Your task to perform on an android device: turn on the 12-hour format for clock Image 0: 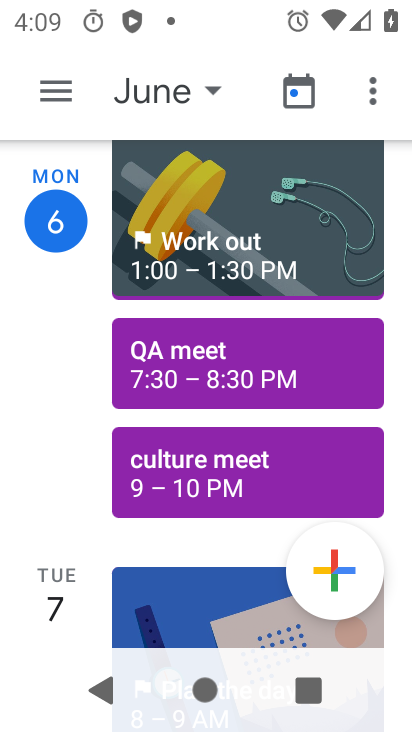
Step 0: press home button
Your task to perform on an android device: turn on the 12-hour format for clock Image 1: 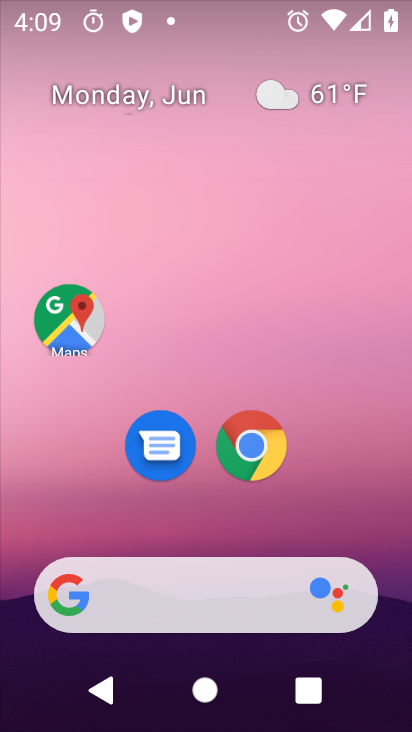
Step 1: drag from (197, 526) to (190, 103)
Your task to perform on an android device: turn on the 12-hour format for clock Image 2: 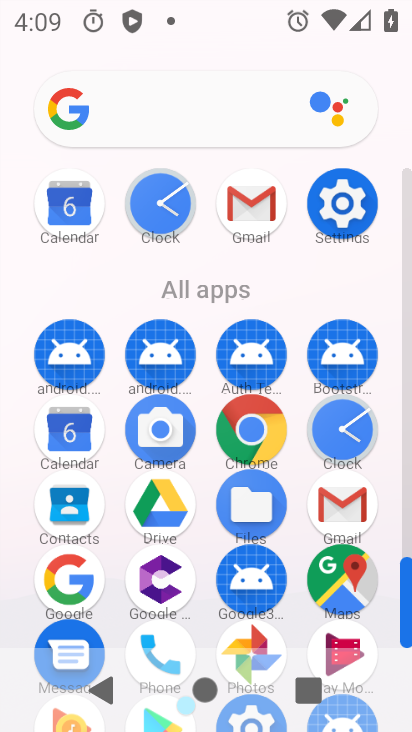
Step 2: click (164, 206)
Your task to perform on an android device: turn on the 12-hour format for clock Image 3: 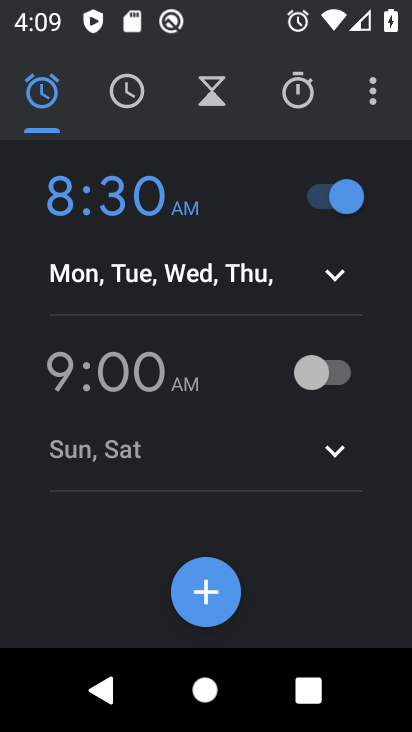
Step 3: click (375, 96)
Your task to perform on an android device: turn on the 12-hour format for clock Image 4: 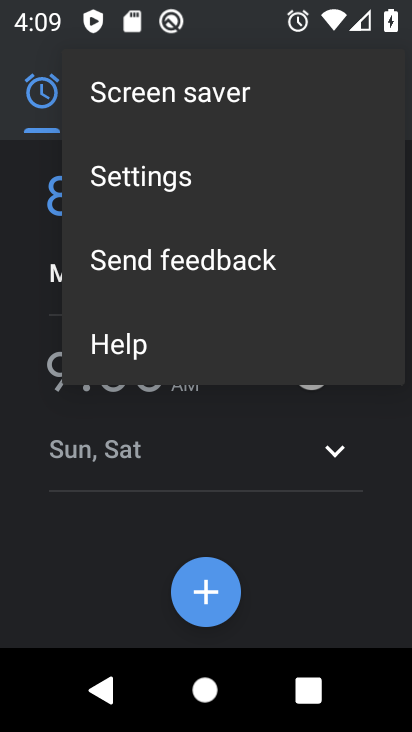
Step 4: click (162, 185)
Your task to perform on an android device: turn on the 12-hour format for clock Image 5: 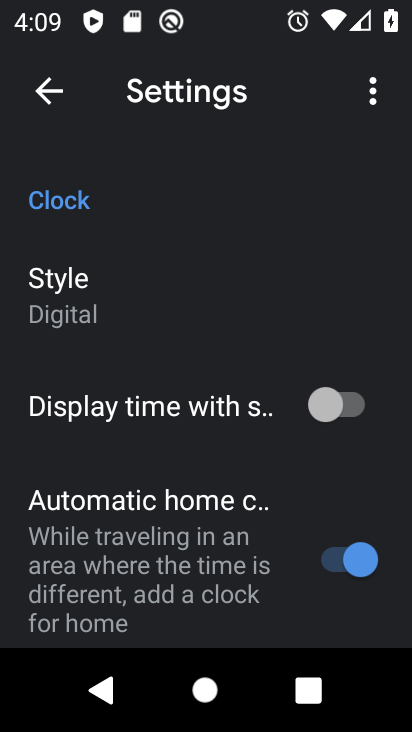
Step 5: drag from (180, 554) to (177, 234)
Your task to perform on an android device: turn on the 12-hour format for clock Image 6: 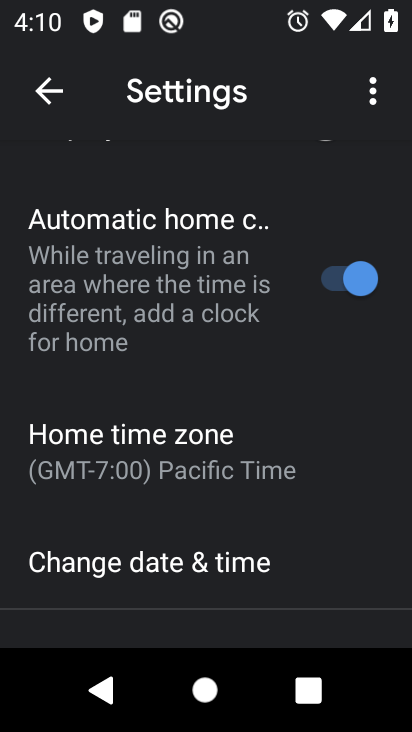
Step 6: click (175, 570)
Your task to perform on an android device: turn on the 12-hour format for clock Image 7: 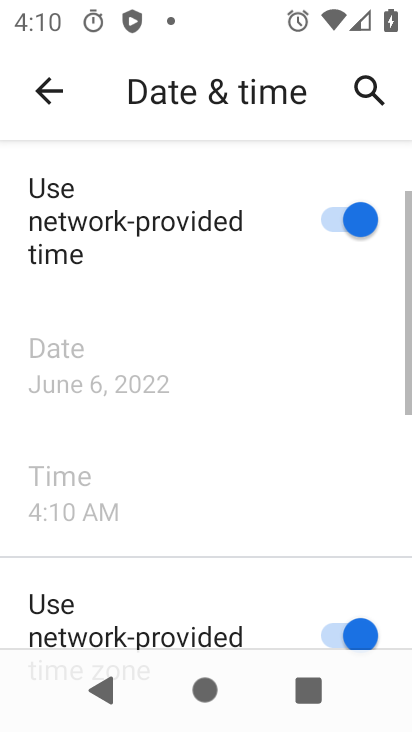
Step 7: task complete